Your task to perform on an android device: Search for Mexican restaurants on Maps Image 0: 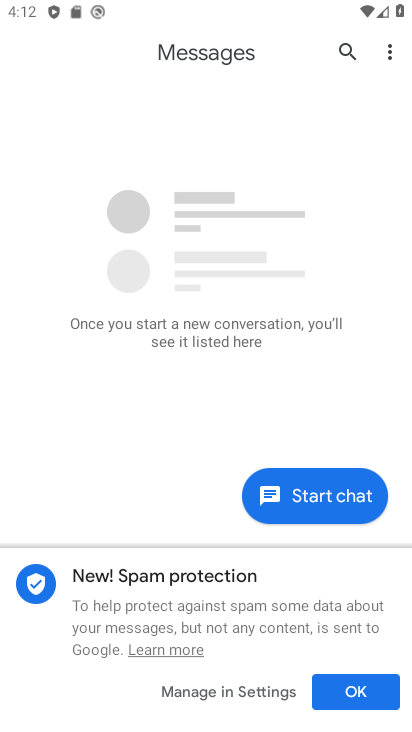
Step 0: press home button
Your task to perform on an android device: Search for Mexican restaurants on Maps Image 1: 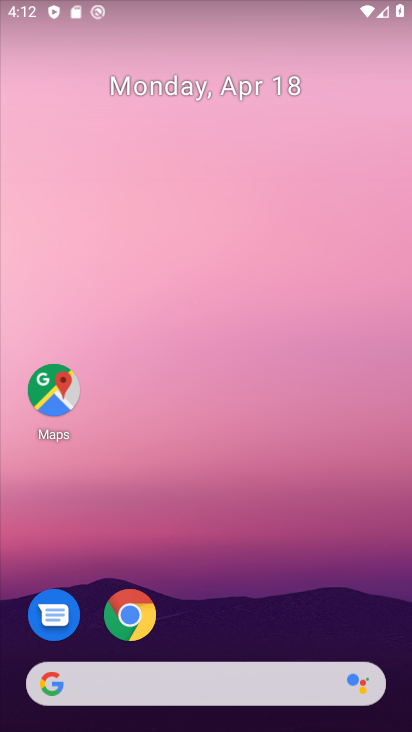
Step 1: drag from (273, 360) to (264, 292)
Your task to perform on an android device: Search for Mexican restaurants on Maps Image 2: 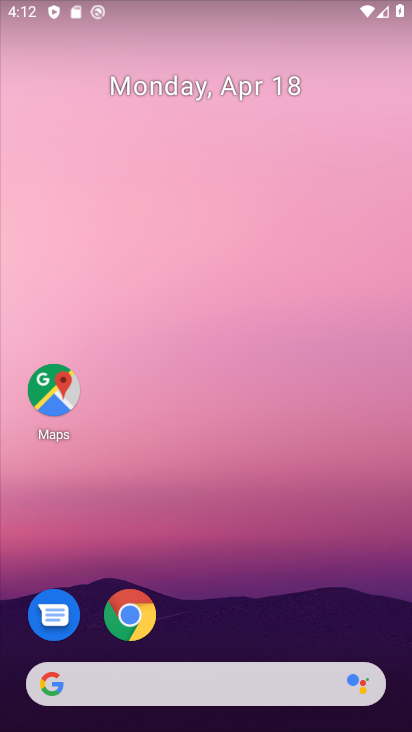
Step 2: click (55, 412)
Your task to perform on an android device: Search for Mexican restaurants on Maps Image 3: 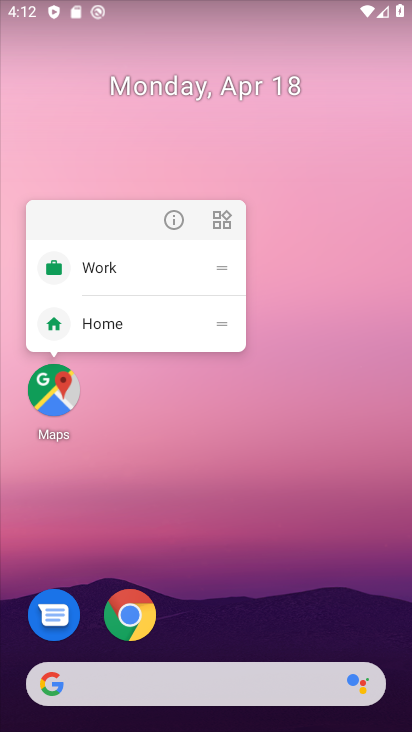
Step 3: click (61, 400)
Your task to perform on an android device: Search for Mexican restaurants on Maps Image 4: 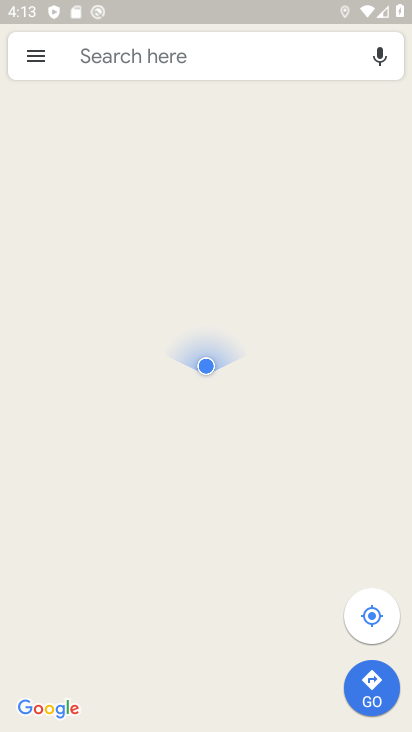
Step 4: click (179, 52)
Your task to perform on an android device: Search for Mexican restaurants on Maps Image 5: 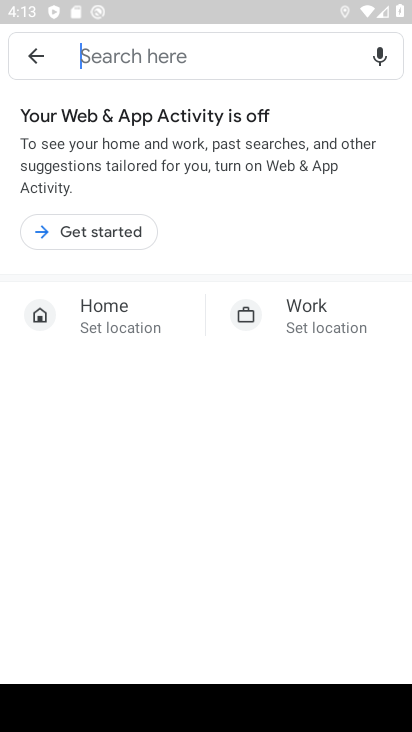
Step 5: type "mexican restaurants"
Your task to perform on an android device: Search for Mexican restaurants on Maps Image 6: 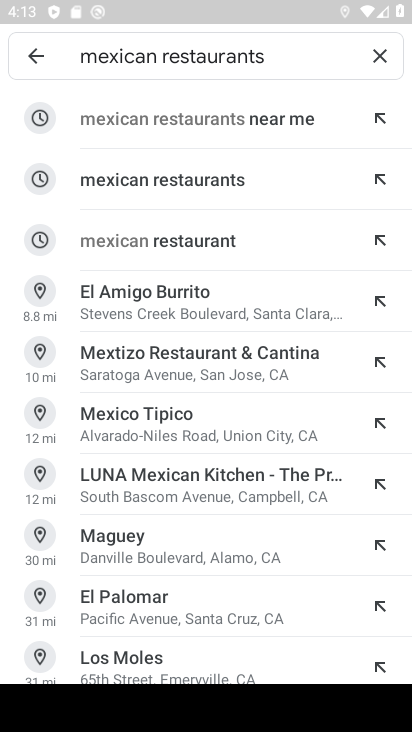
Step 6: click (203, 187)
Your task to perform on an android device: Search for Mexican restaurants on Maps Image 7: 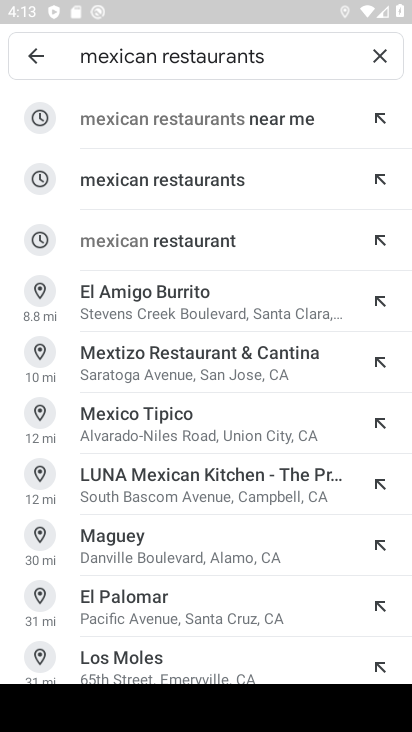
Step 7: click (203, 184)
Your task to perform on an android device: Search for Mexican restaurants on Maps Image 8: 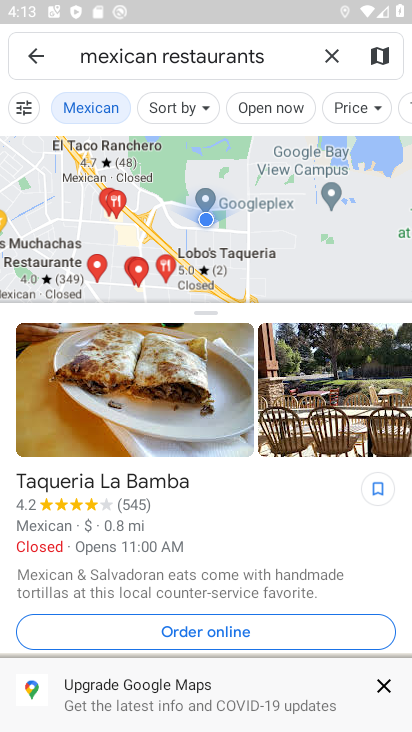
Step 8: task complete